Your task to perform on an android device: Open Amazon Image 0: 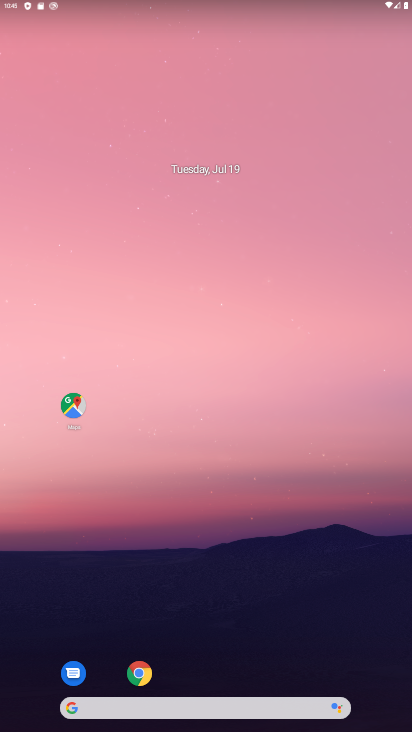
Step 0: click (139, 672)
Your task to perform on an android device: Open Amazon Image 1: 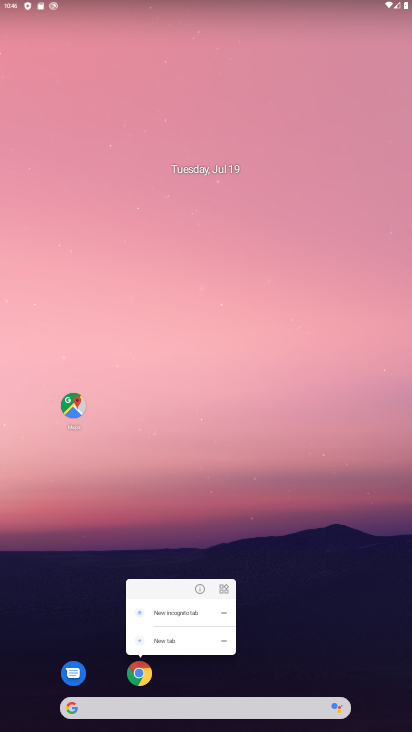
Step 1: click (139, 679)
Your task to perform on an android device: Open Amazon Image 2: 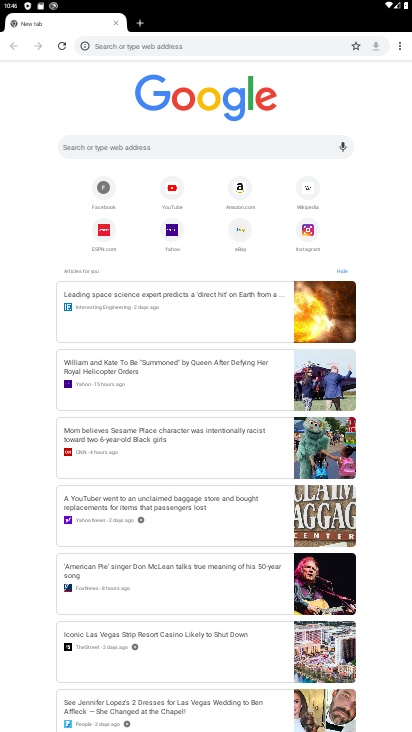
Step 2: click (239, 189)
Your task to perform on an android device: Open Amazon Image 3: 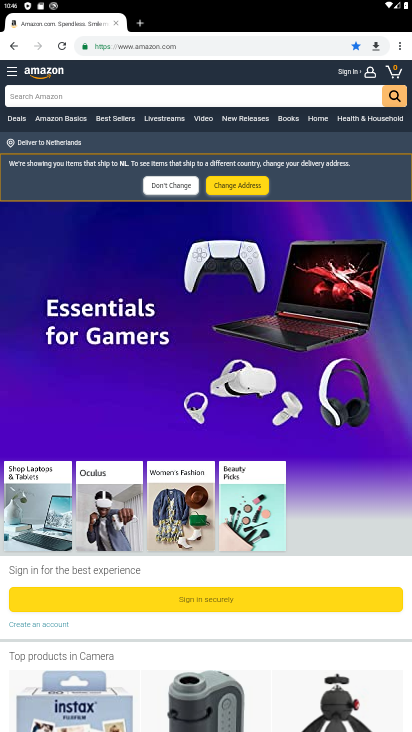
Step 3: task complete